Your task to perform on an android device: Open Google Chrome and click the shortcut for Amazon.com Image 0: 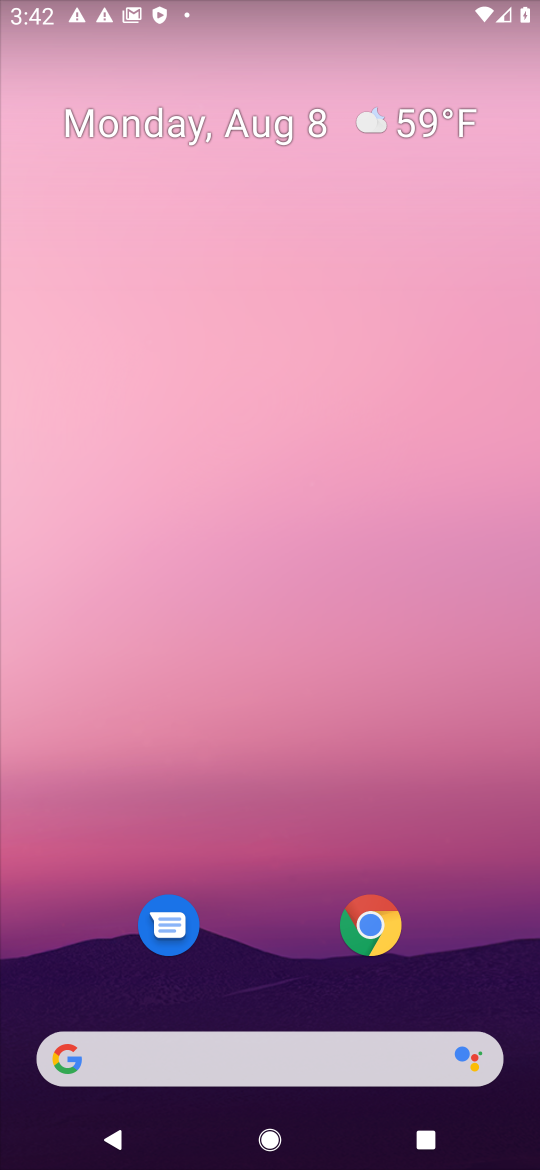
Step 0: click (364, 922)
Your task to perform on an android device: Open Google Chrome and click the shortcut for Amazon.com Image 1: 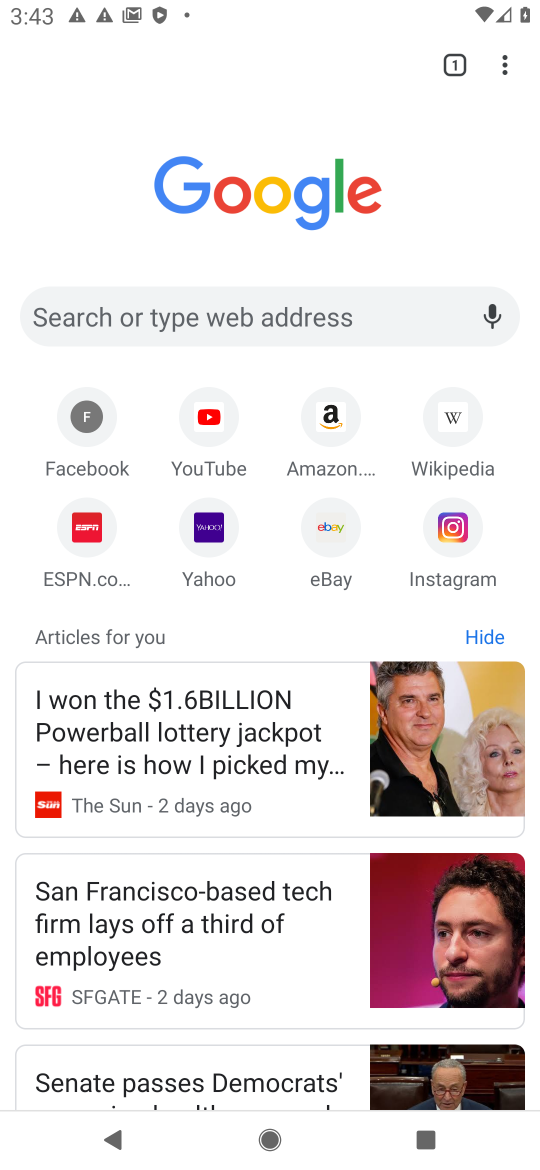
Step 1: click (325, 441)
Your task to perform on an android device: Open Google Chrome and click the shortcut for Amazon.com Image 2: 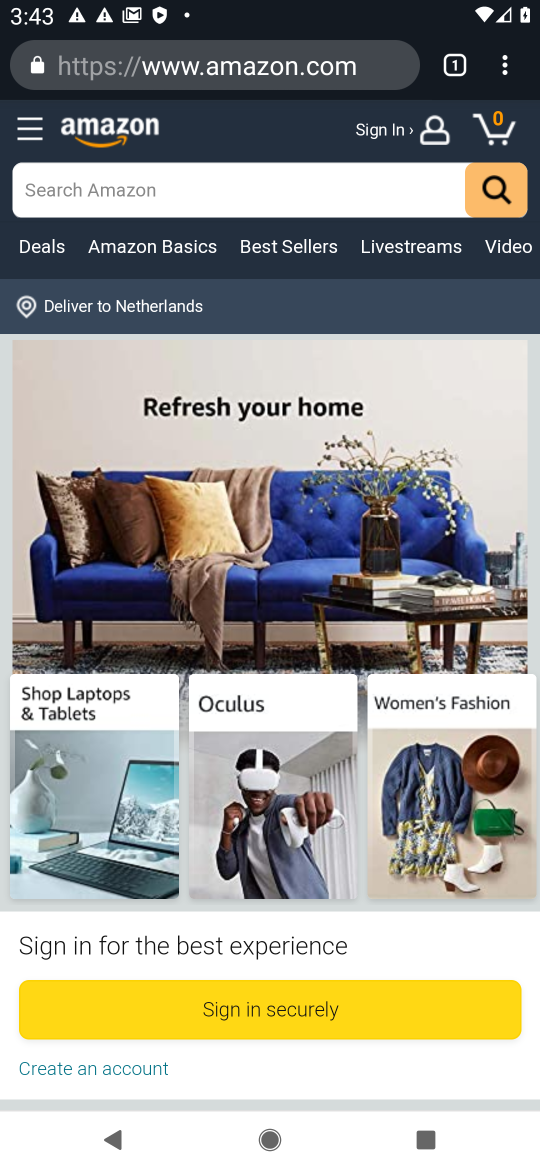
Step 2: task complete